Your task to perform on an android device: uninstall "Messenger Lite" Image 0: 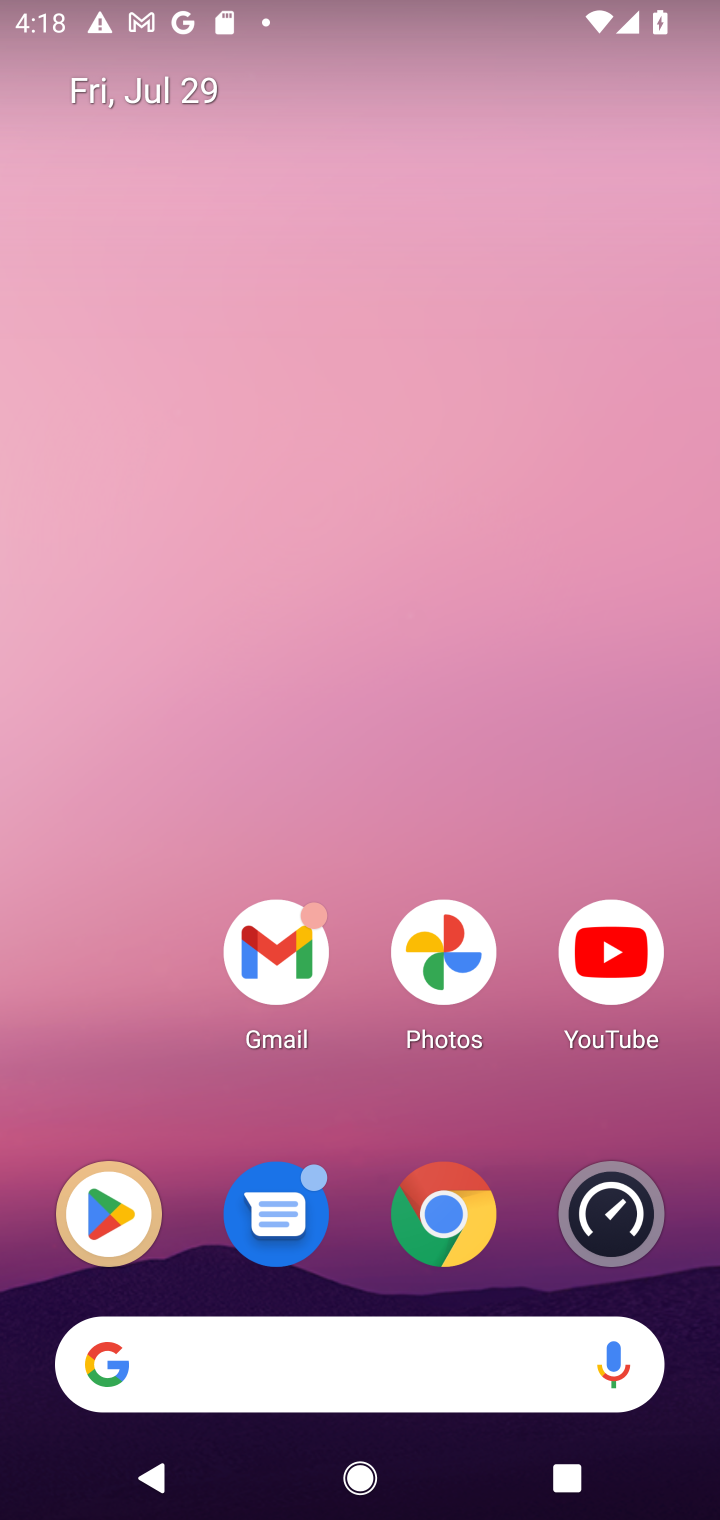
Step 0: drag from (186, 1175) to (369, 46)
Your task to perform on an android device: uninstall "Messenger Lite" Image 1: 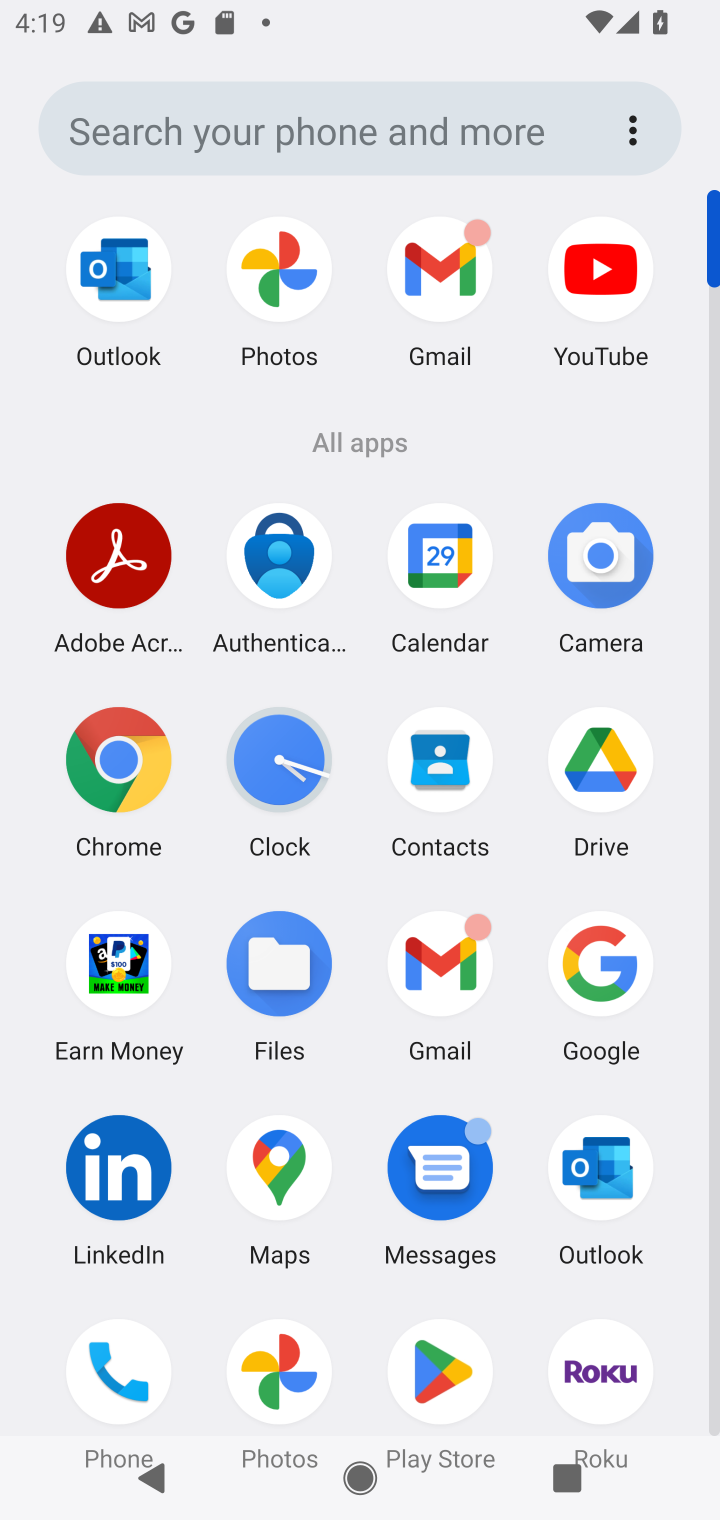
Step 1: click (425, 1374)
Your task to perform on an android device: uninstall "Messenger Lite" Image 2: 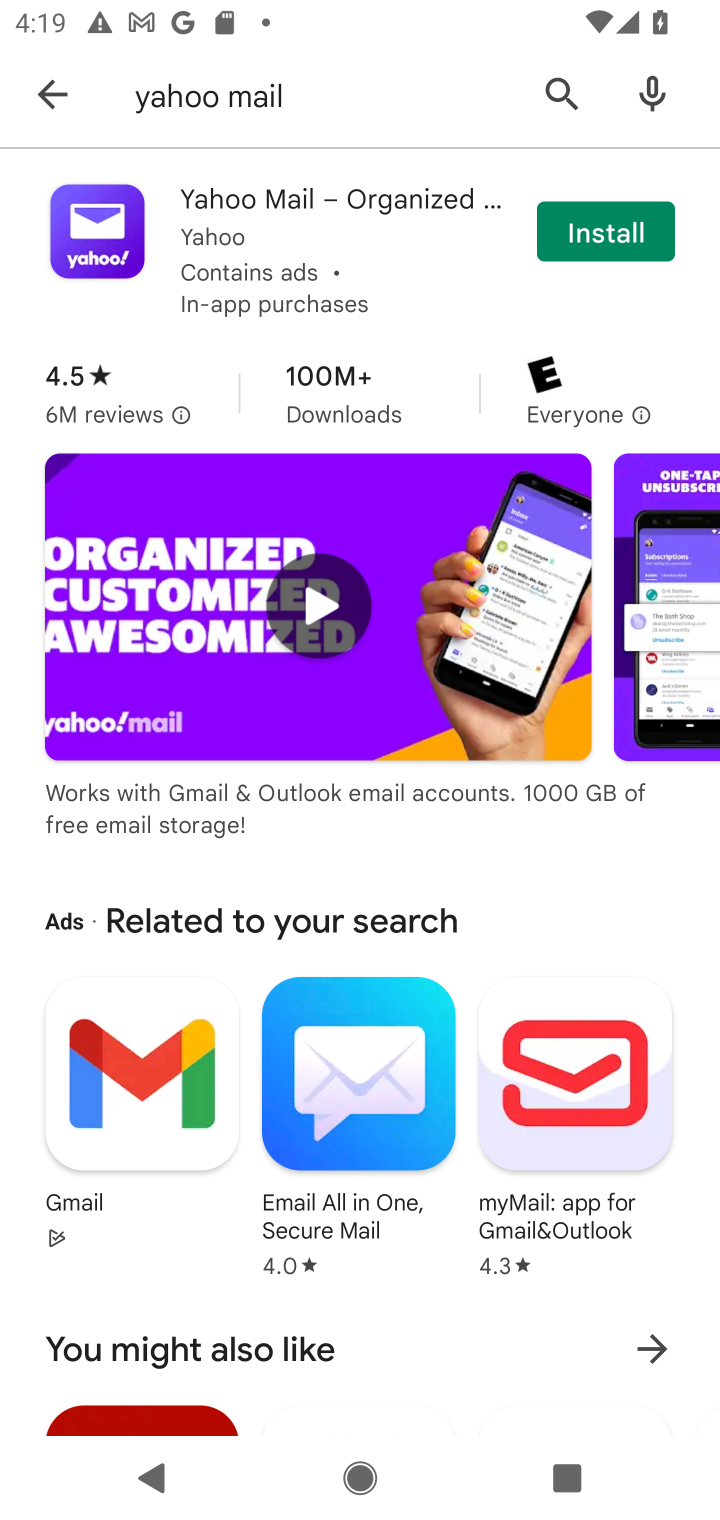
Step 2: click (315, 89)
Your task to perform on an android device: uninstall "Messenger Lite" Image 3: 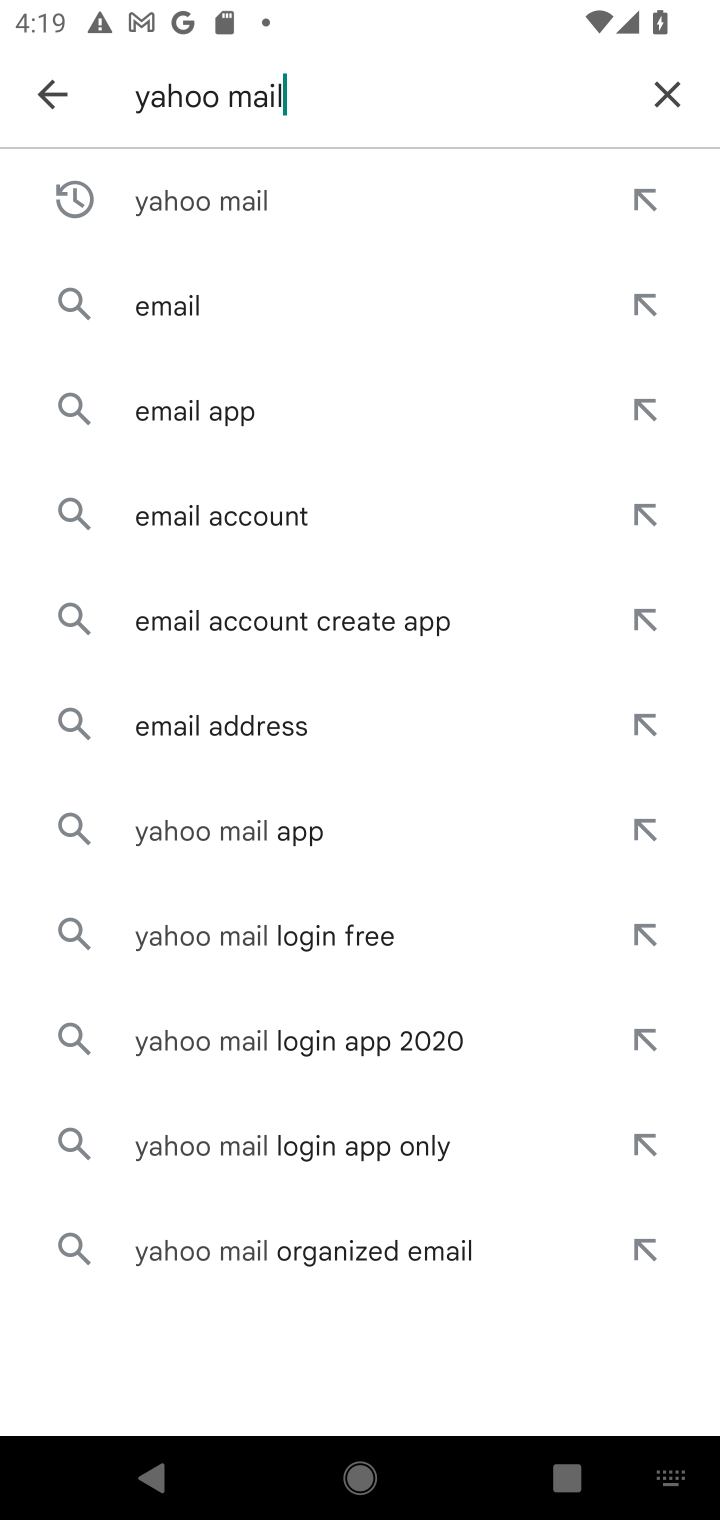
Step 3: click (671, 90)
Your task to perform on an android device: uninstall "Messenger Lite" Image 4: 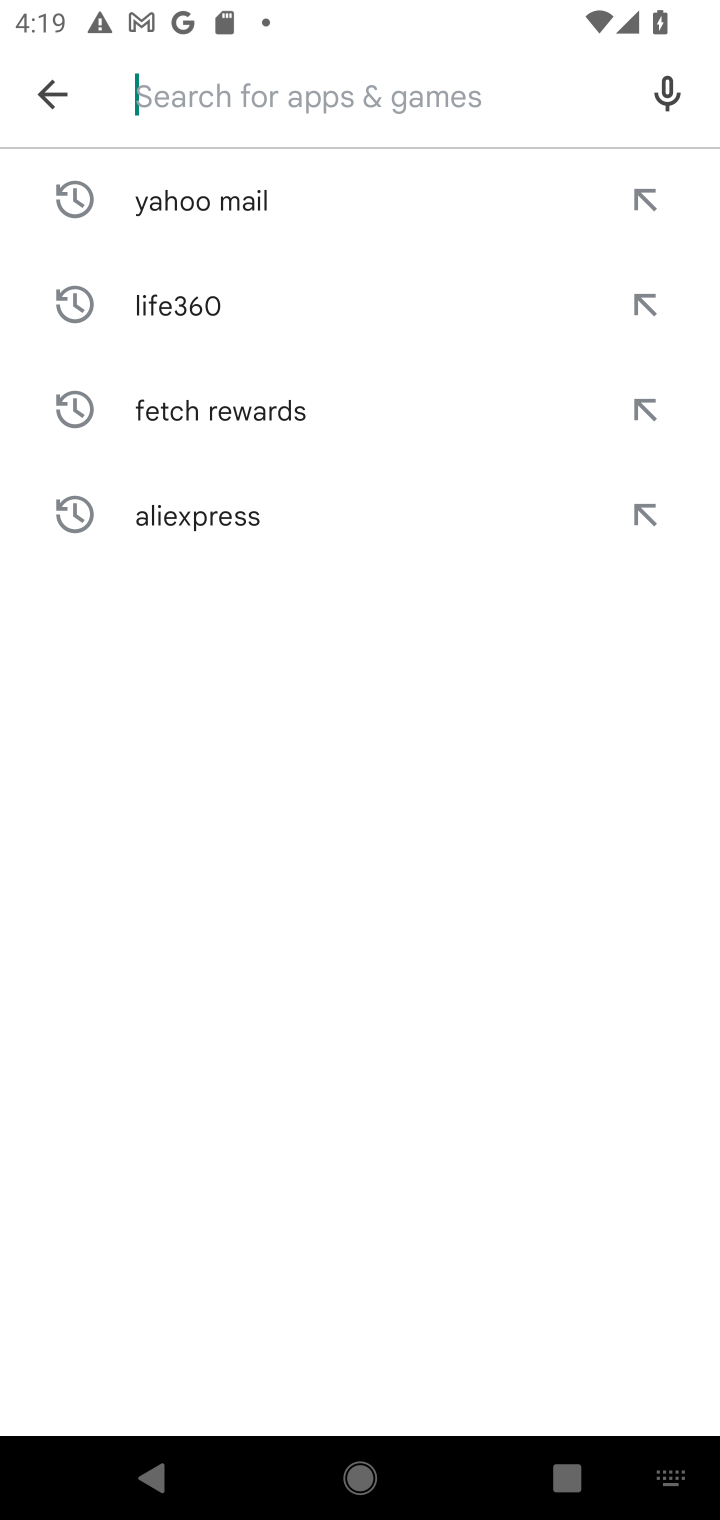
Step 4: type "Messenger Lite"
Your task to perform on an android device: uninstall "Messenger Lite" Image 5: 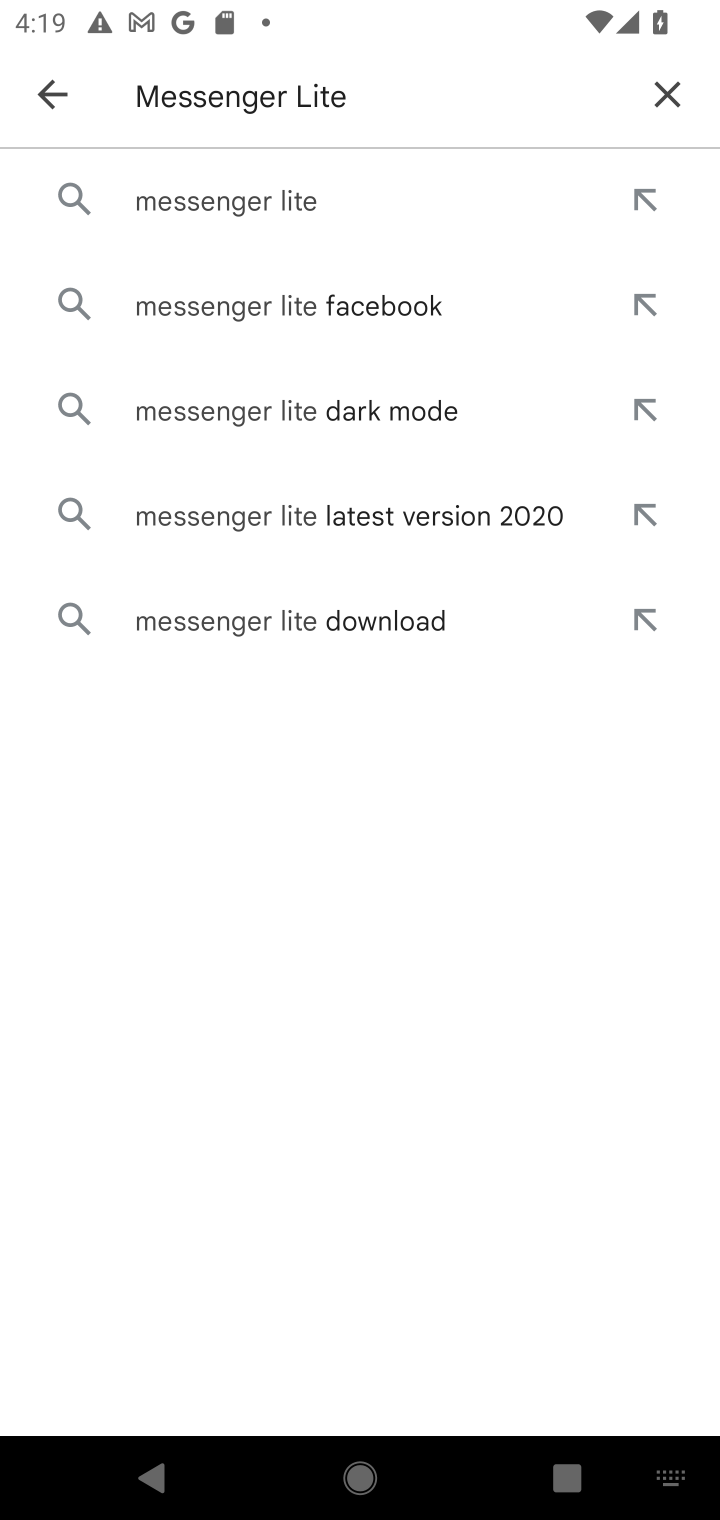
Step 5: click (217, 236)
Your task to perform on an android device: uninstall "Messenger Lite" Image 6: 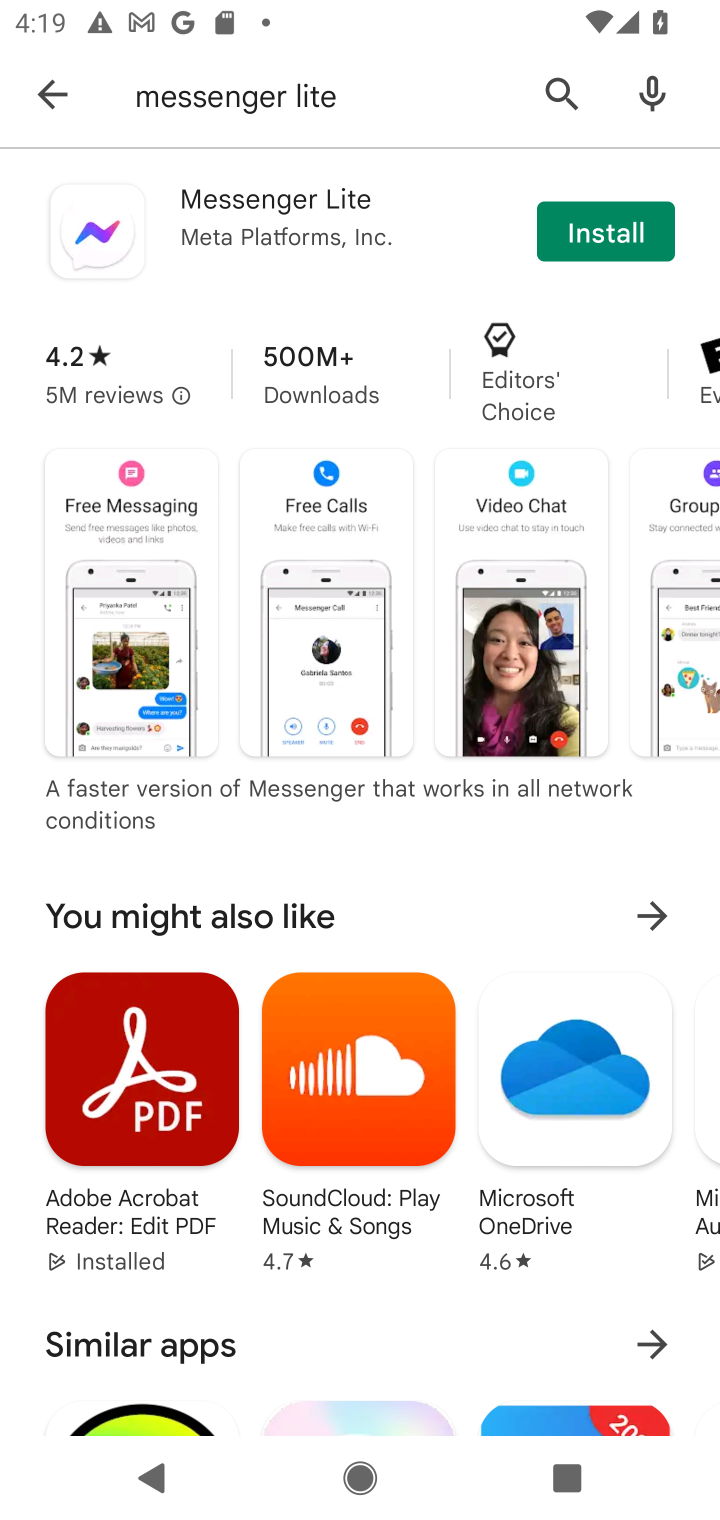
Step 6: task complete